Your task to perform on an android device: What's on my calendar today? Image 0: 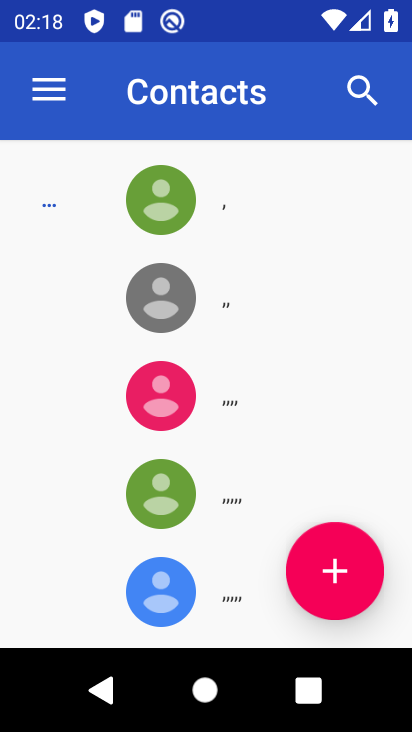
Step 0: press home button
Your task to perform on an android device: What's on my calendar today? Image 1: 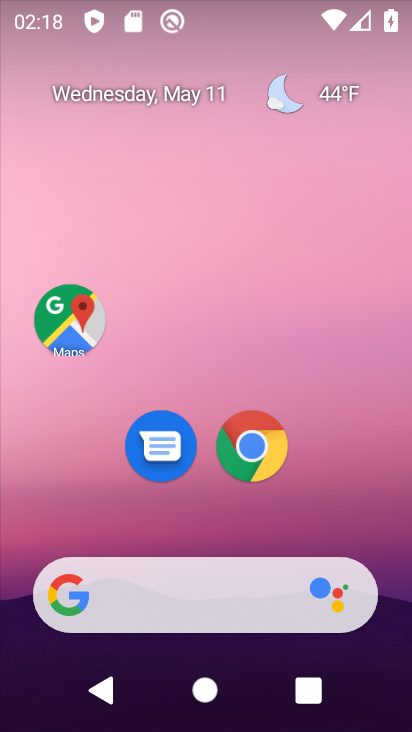
Step 1: drag from (363, 521) to (223, 272)
Your task to perform on an android device: What's on my calendar today? Image 2: 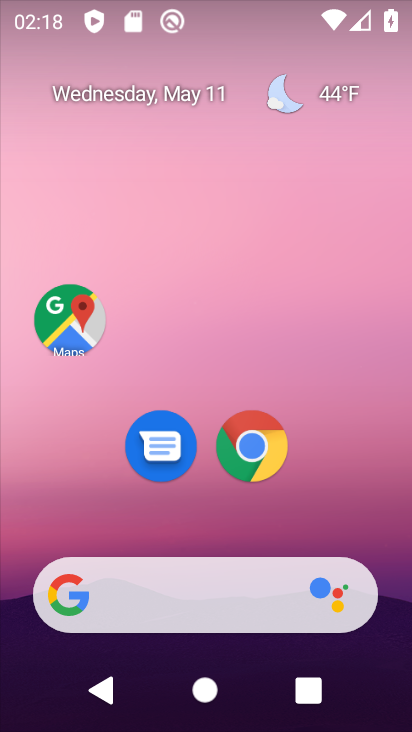
Step 2: drag from (337, 491) to (267, 137)
Your task to perform on an android device: What's on my calendar today? Image 3: 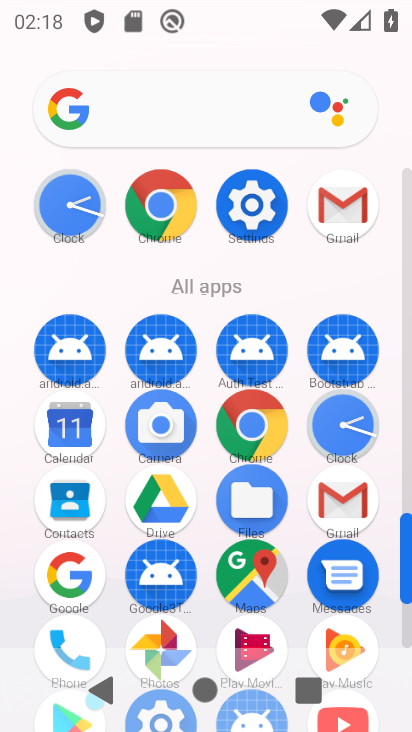
Step 3: click (67, 425)
Your task to perform on an android device: What's on my calendar today? Image 4: 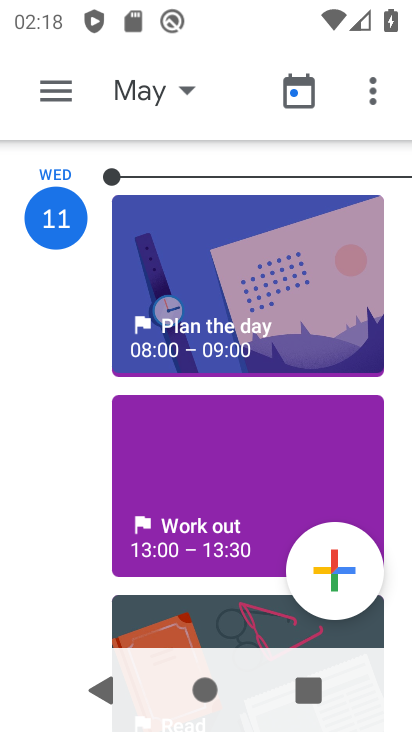
Step 4: task complete